Your task to perform on an android device: turn off data saver in the chrome app Image 0: 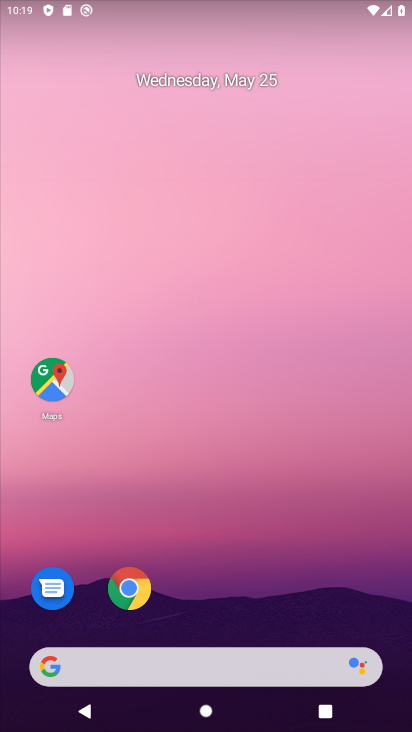
Step 0: click (135, 586)
Your task to perform on an android device: turn off data saver in the chrome app Image 1: 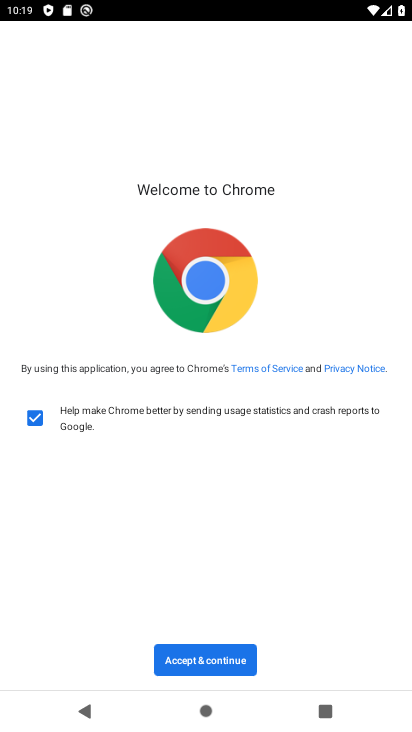
Step 1: click (226, 655)
Your task to perform on an android device: turn off data saver in the chrome app Image 2: 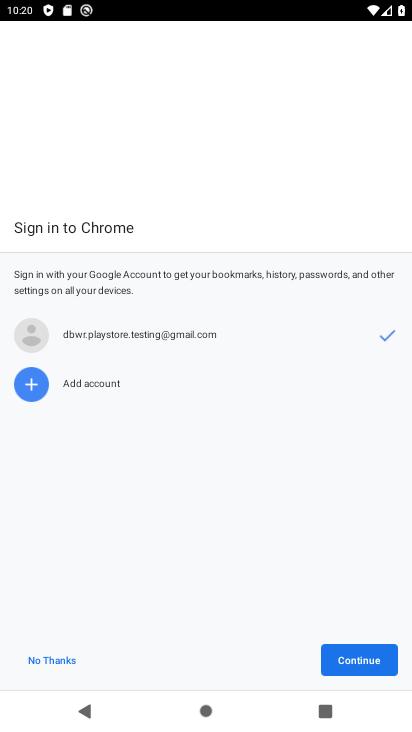
Step 2: click (374, 662)
Your task to perform on an android device: turn off data saver in the chrome app Image 3: 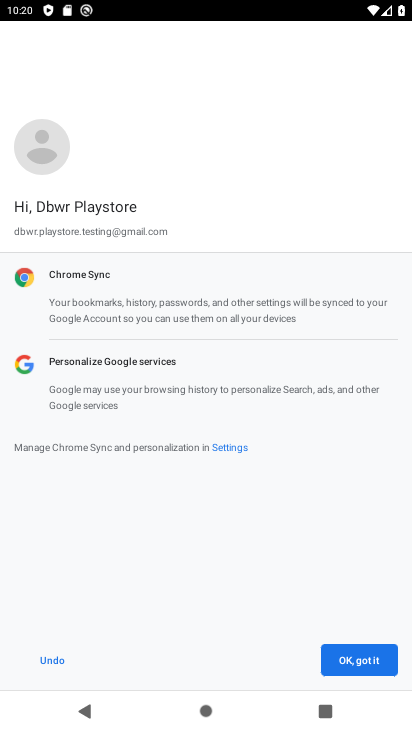
Step 3: click (348, 661)
Your task to perform on an android device: turn off data saver in the chrome app Image 4: 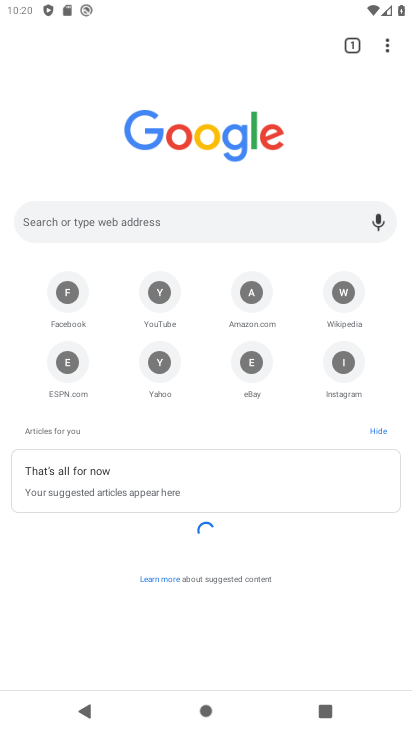
Step 4: click (389, 45)
Your task to perform on an android device: turn off data saver in the chrome app Image 5: 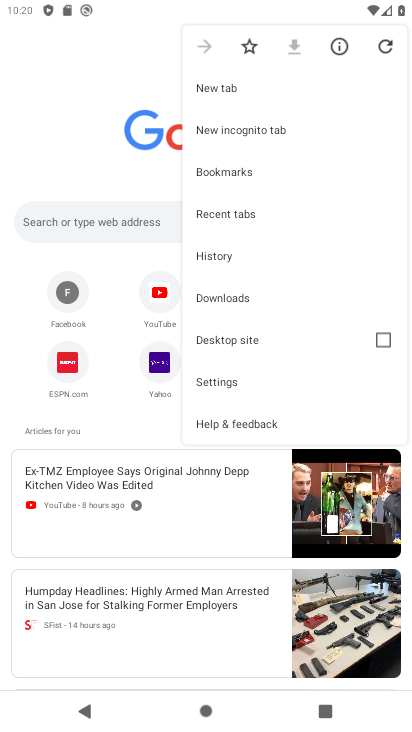
Step 5: click (244, 380)
Your task to perform on an android device: turn off data saver in the chrome app Image 6: 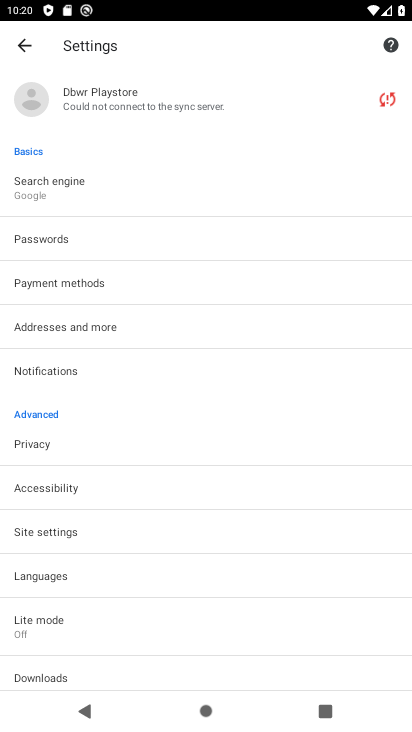
Step 6: drag from (220, 610) to (207, 330)
Your task to perform on an android device: turn off data saver in the chrome app Image 7: 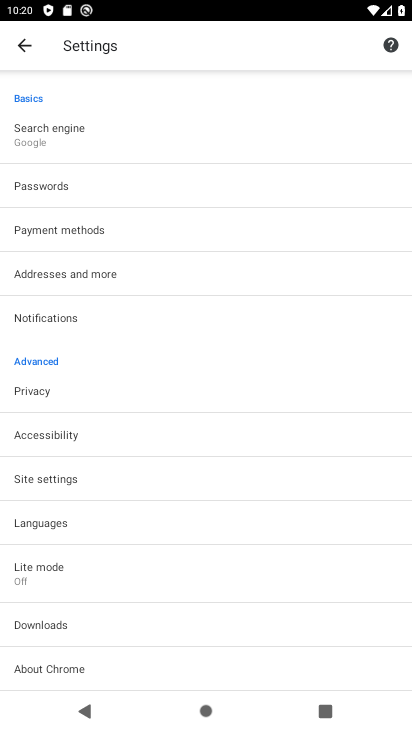
Step 7: click (150, 568)
Your task to perform on an android device: turn off data saver in the chrome app Image 8: 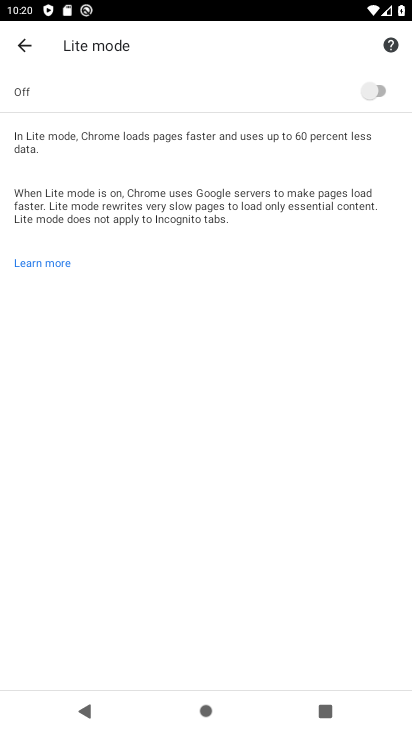
Step 8: task complete